Your task to perform on an android device: set the stopwatch Image 0: 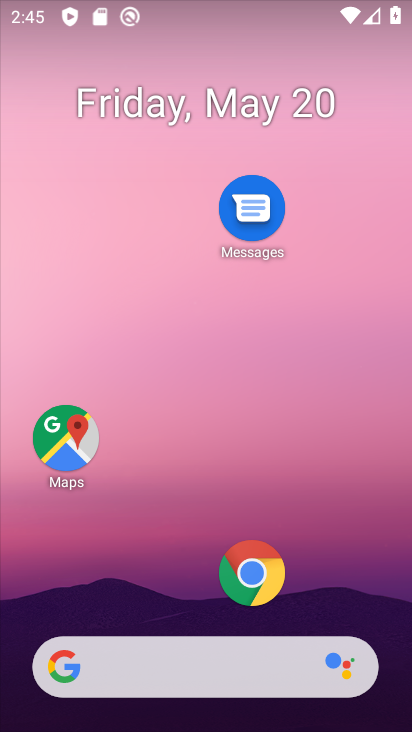
Step 0: drag from (156, 565) to (181, 172)
Your task to perform on an android device: set the stopwatch Image 1: 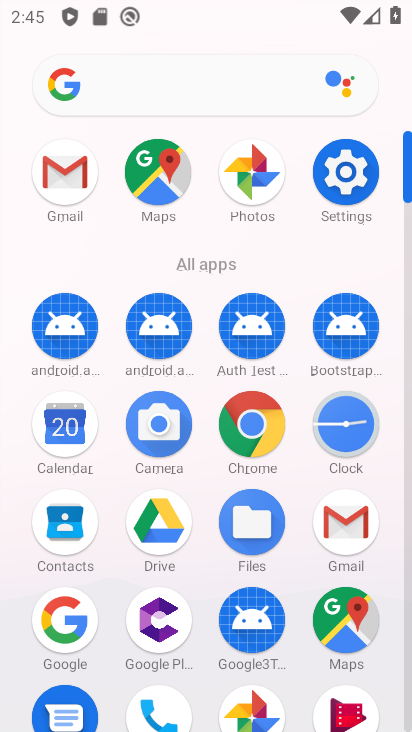
Step 1: drag from (166, 622) to (169, 66)
Your task to perform on an android device: set the stopwatch Image 2: 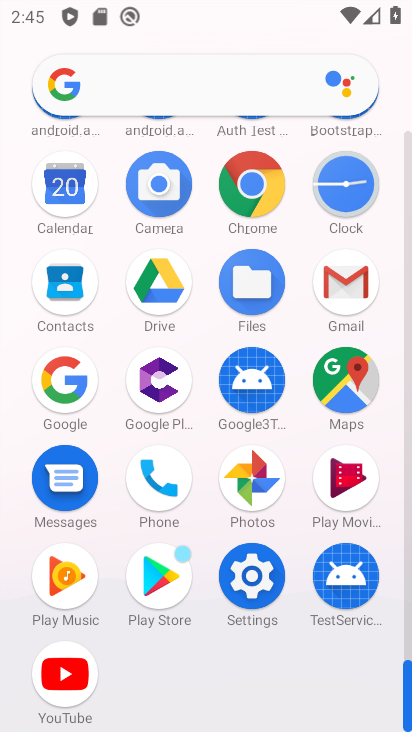
Step 2: click (323, 175)
Your task to perform on an android device: set the stopwatch Image 3: 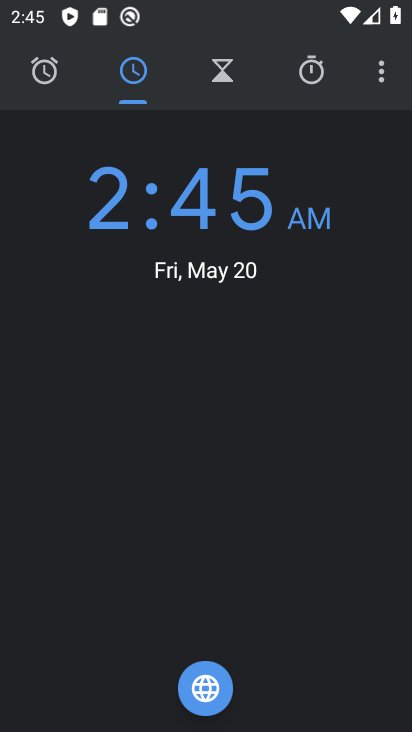
Step 3: click (336, 73)
Your task to perform on an android device: set the stopwatch Image 4: 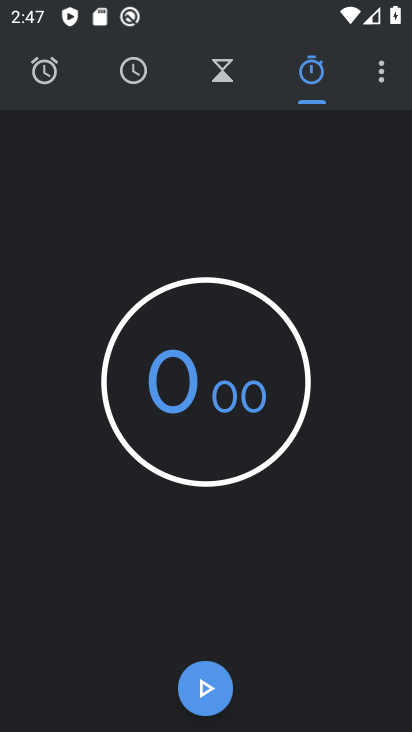
Step 4: task complete